Your task to perform on an android device: remove spam from my inbox in the gmail app Image 0: 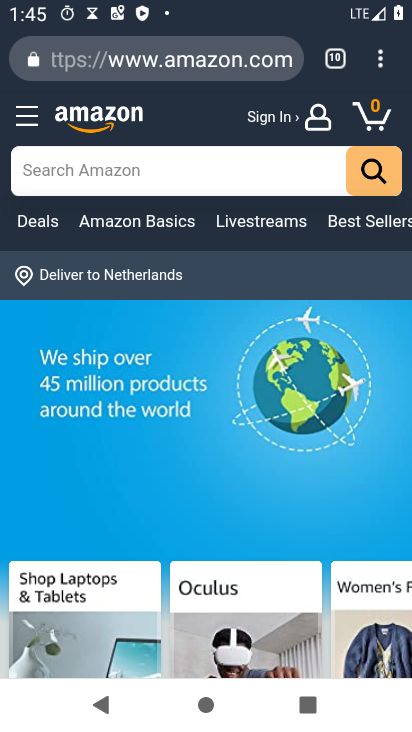
Step 0: press home button
Your task to perform on an android device: remove spam from my inbox in the gmail app Image 1: 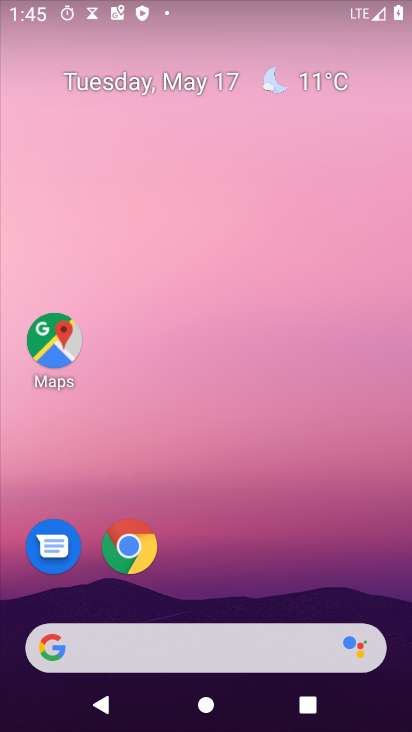
Step 1: drag from (125, 658) to (290, 116)
Your task to perform on an android device: remove spam from my inbox in the gmail app Image 2: 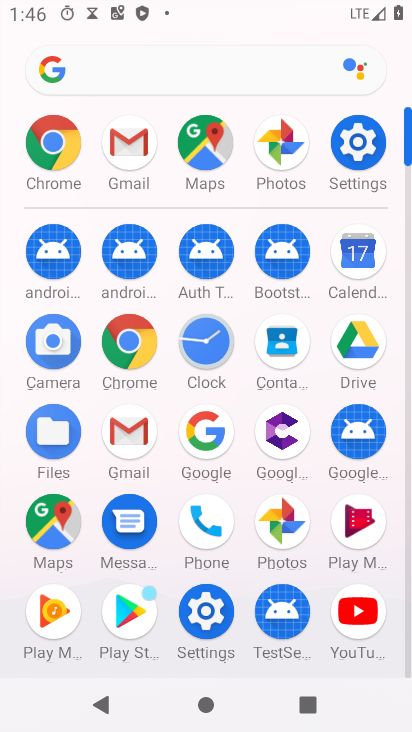
Step 2: click (122, 146)
Your task to perform on an android device: remove spam from my inbox in the gmail app Image 3: 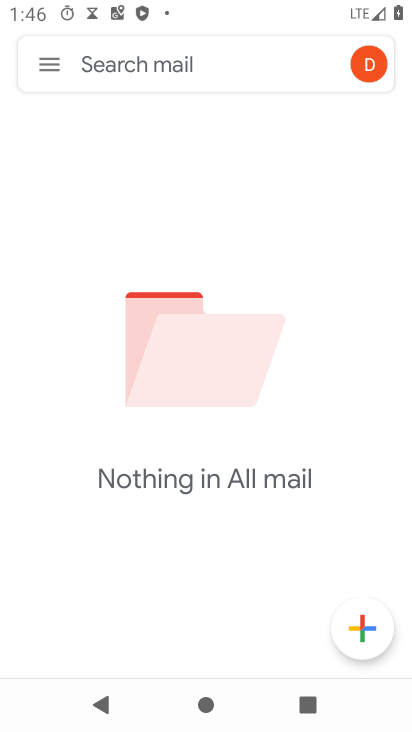
Step 3: click (51, 60)
Your task to perform on an android device: remove spam from my inbox in the gmail app Image 4: 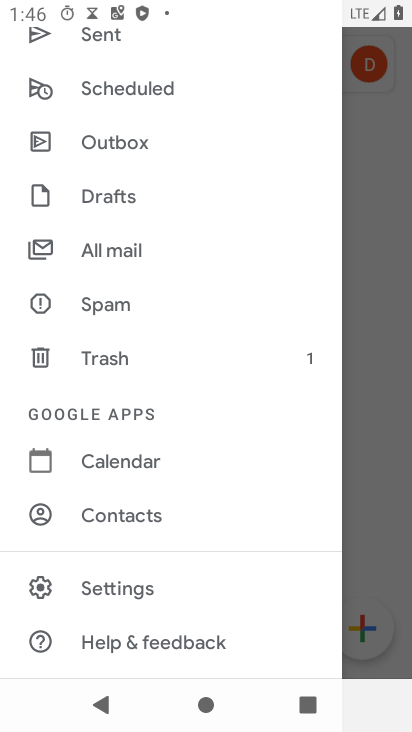
Step 4: click (118, 304)
Your task to perform on an android device: remove spam from my inbox in the gmail app Image 5: 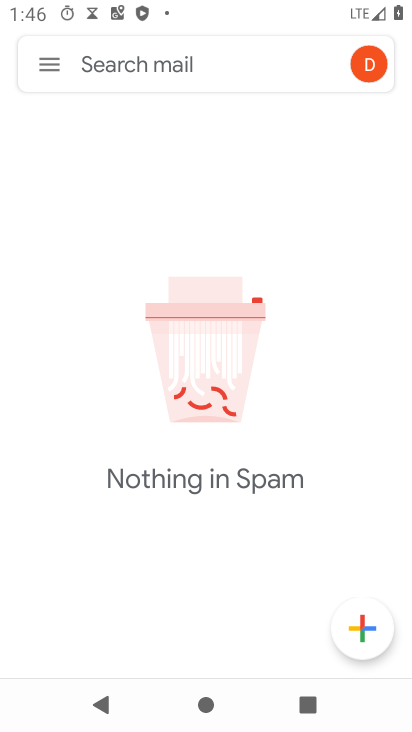
Step 5: task complete